Your task to perform on an android device: change alarm snooze length Image 0: 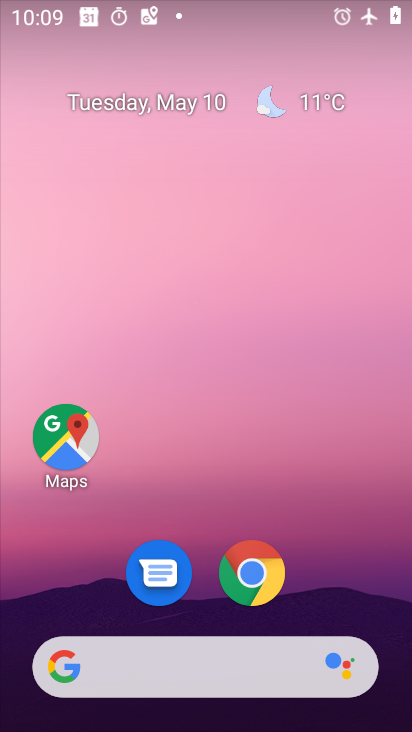
Step 0: drag from (322, 555) to (332, 0)
Your task to perform on an android device: change alarm snooze length Image 1: 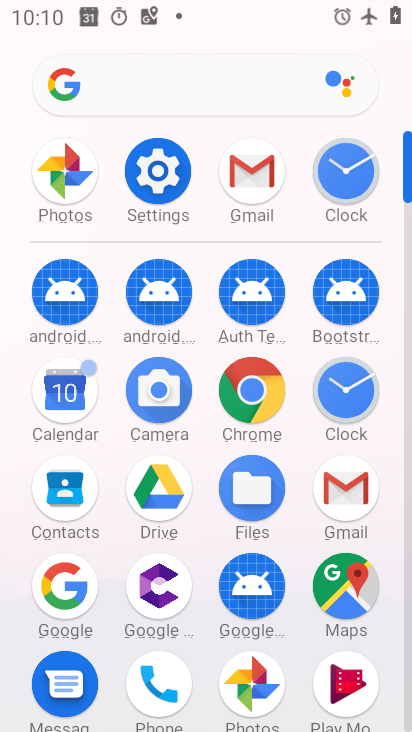
Step 1: click (338, 174)
Your task to perform on an android device: change alarm snooze length Image 2: 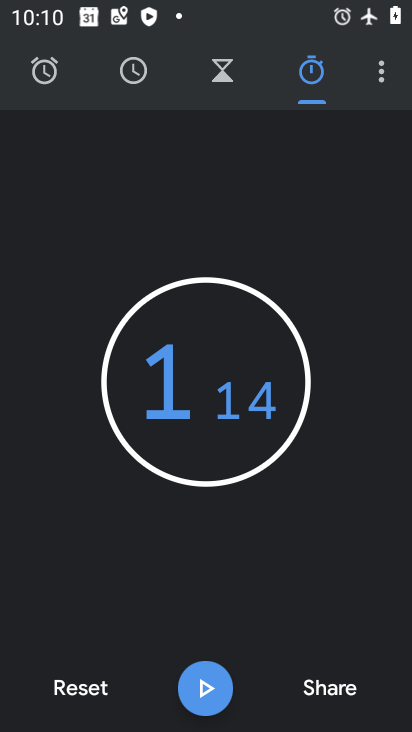
Step 2: click (381, 80)
Your task to perform on an android device: change alarm snooze length Image 3: 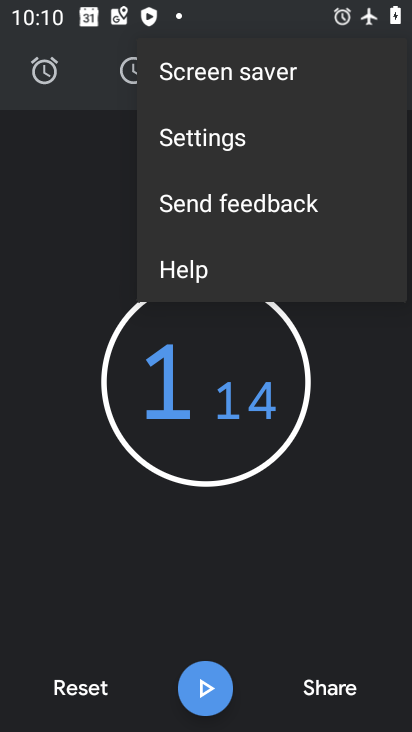
Step 3: click (211, 138)
Your task to perform on an android device: change alarm snooze length Image 4: 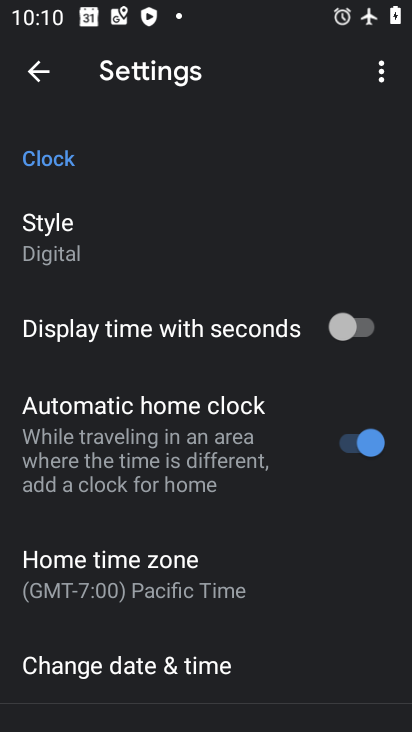
Step 4: drag from (131, 535) to (146, 164)
Your task to perform on an android device: change alarm snooze length Image 5: 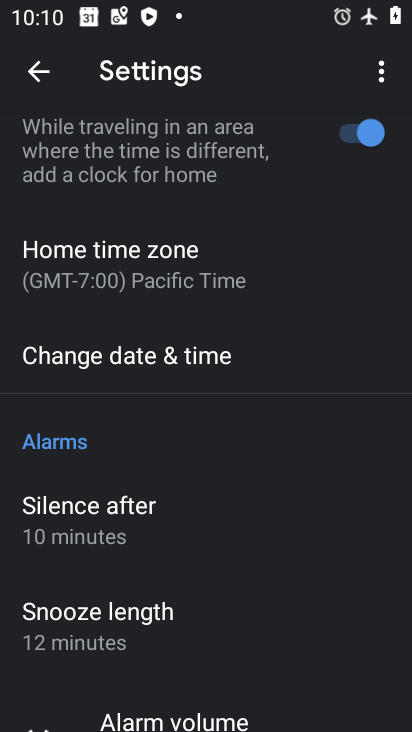
Step 5: click (93, 632)
Your task to perform on an android device: change alarm snooze length Image 6: 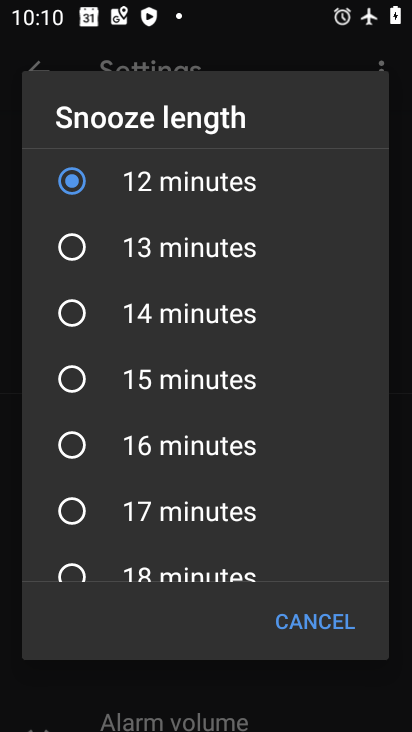
Step 6: drag from (145, 217) to (181, 513)
Your task to perform on an android device: change alarm snooze length Image 7: 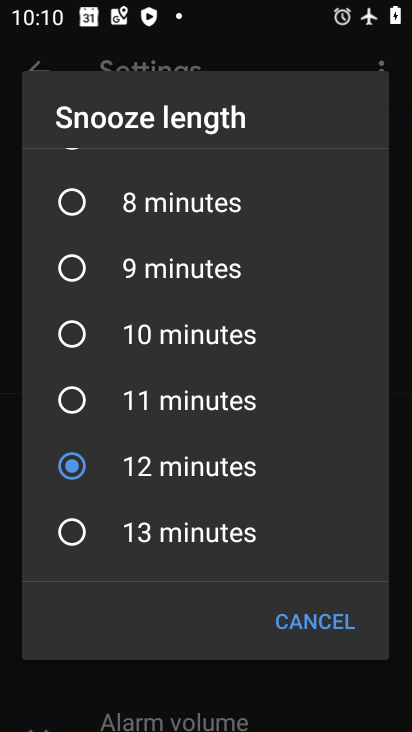
Step 7: click (67, 274)
Your task to perform on an android device: change alarm snooze length Image 8: 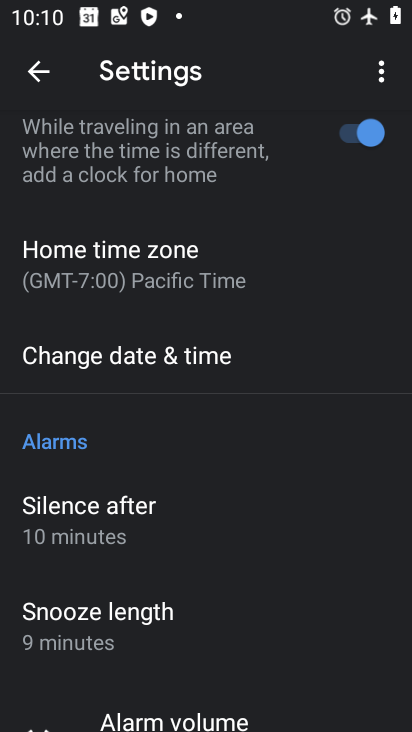
Step 8: task complete